Your task to perform on an android device: Open privacy settings Image 0: 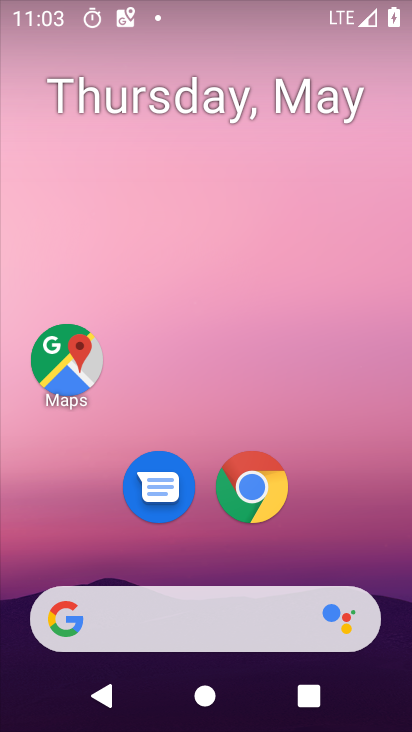
Step 0: drag from (233, 585) to (261, 1)
Your task to perform on an android device: Open privacy settings Image 1: 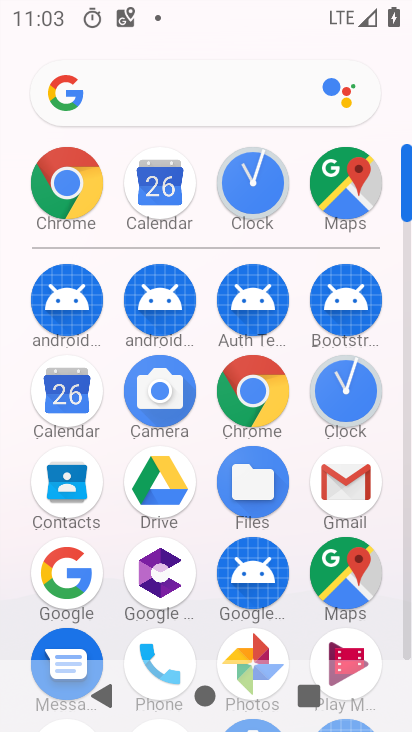
Step 1: drag from (239, 490) to (247, 99)
Your task to perform on an android device: Open privacy settings Image 2: 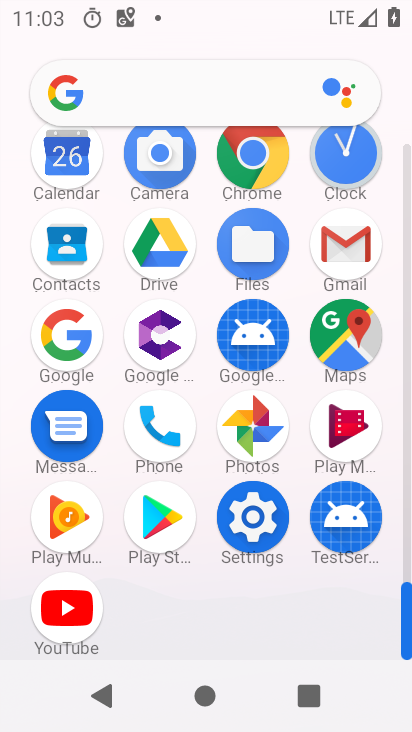
Step 2: click (263, 529)
Your task to perform on an android device: Open privacy settings Image 3: 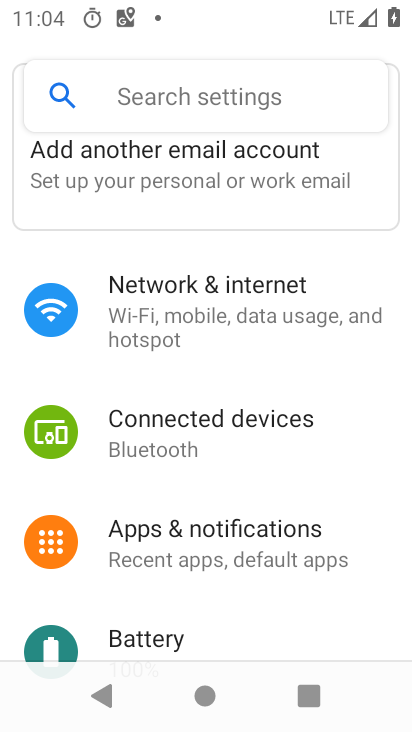
Step 3: drag from (292, 194) to (337, 34)
Your task to perform on an android device: Open privacy settings Image 4: 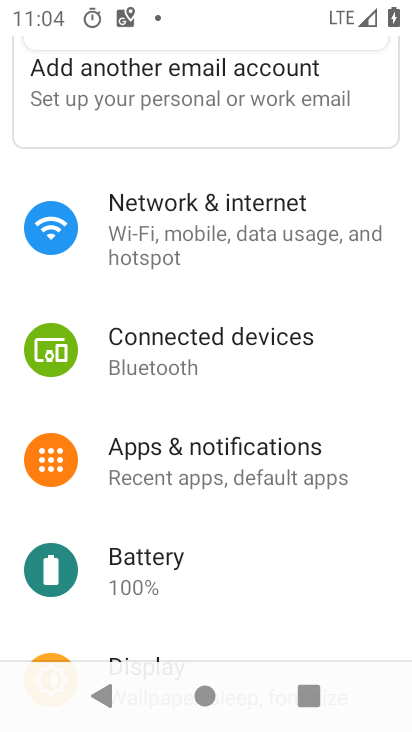
Step 4: drag from (209, 459) to (232, 102)
Your task to perform on an android device: Open privacy settings Image 5: 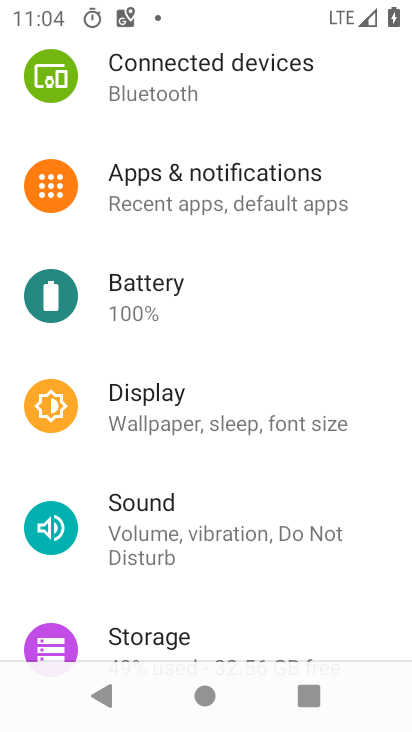
Step 5: drag from (195, 484) to (251, 62)
Your task to perform on an android device: Open privacy settings Image 6: 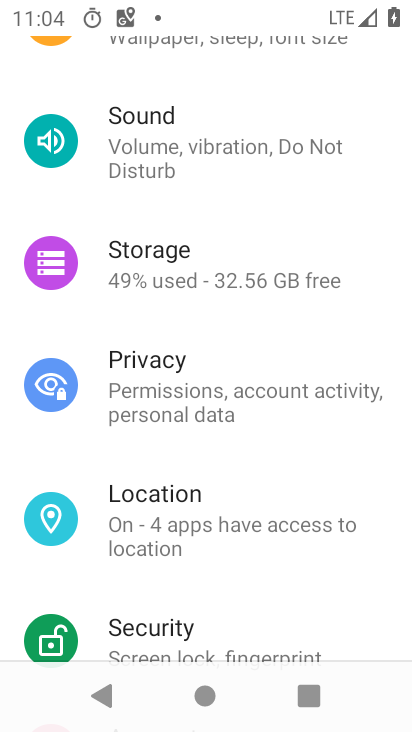
Step 6: drag from (209, 469) to (228, 374)
Your task to perform on an android device: Open privacy settings Image 7: 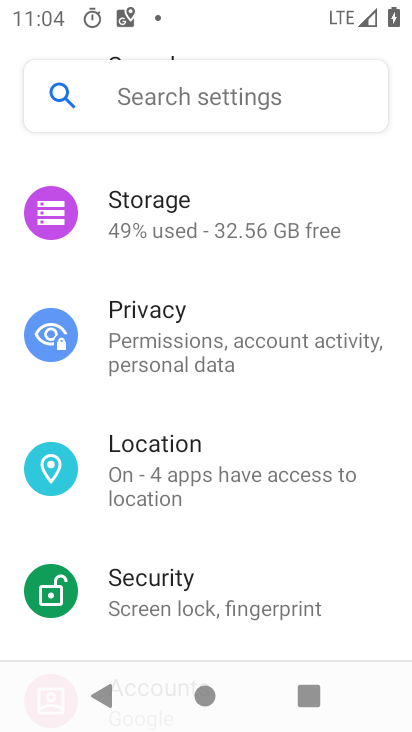
Step 7: click (240, 344)
Your task to perform on an android device: Open privacy settings Image 8: 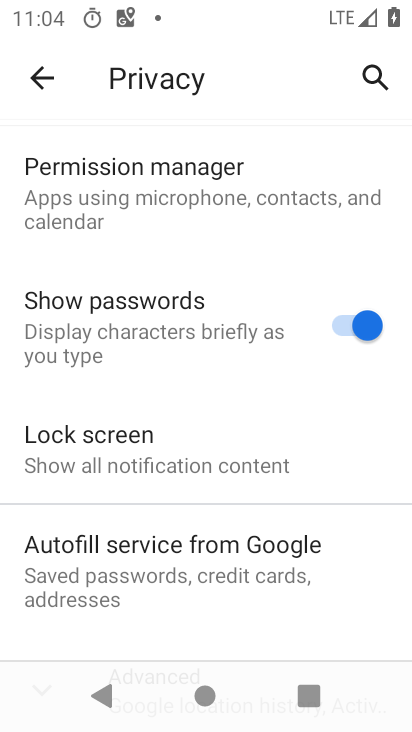
Step 8: task complete